Your task to perform on an android device: open a bookmark in the chrome app Image 0: 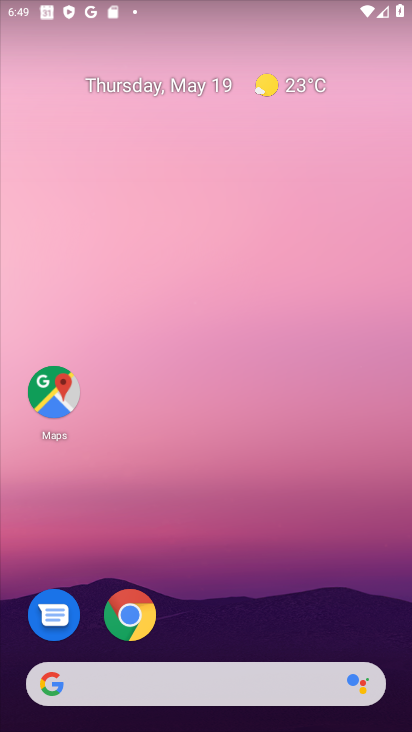
Step 0: drag from (378, 633) to (252, 77)
Your task to perform on an android device: open a bookmark in the chrome app Image 1: 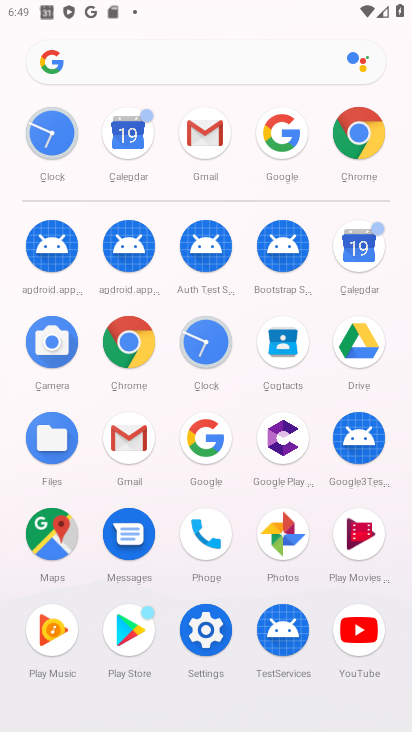
Step 1: click (370, 138)
Your task to perform on an android device: open a bookmark in the chrome app Image 2: 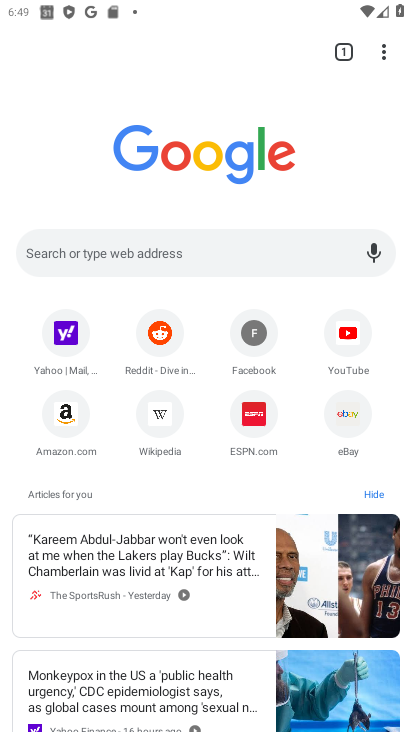
Step 2: click (384, 47)
Your task to perform on an android device: open a bookmark in the chrome app Image 3: 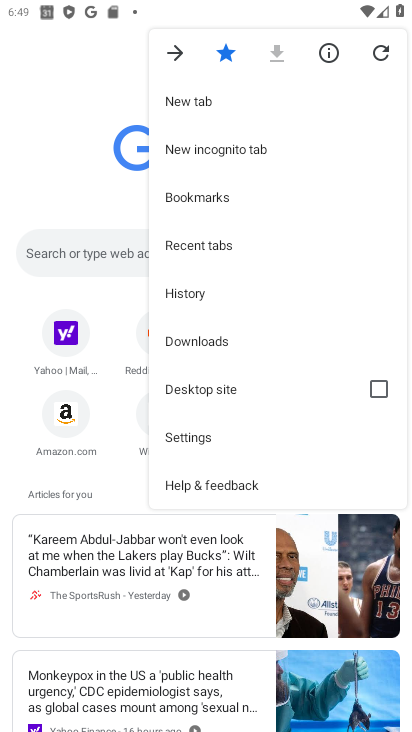
Step 3: click (245, 205)
Your task to perform on an android device: open a bookmark in the chrome app Image 4: 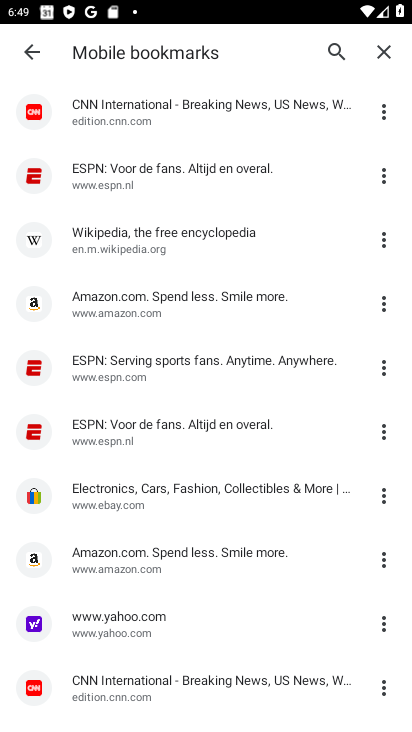
Step 4: task complete